Your task to perform on an android device: Open calendar and show me the first week of next month Image 0: 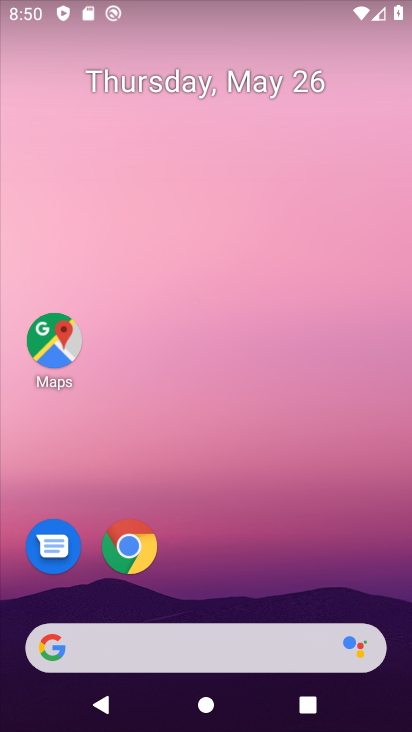
Step 0: drag from (237, 580) to (229, 93)
Your task to perform on an android device: Open calendar and show me the first week of next month Image 1: 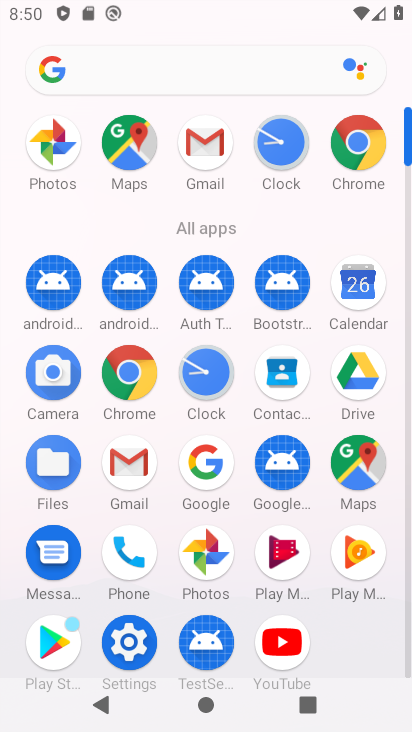
Step 1: click (351, 302)
Your task to perform on an android device: Open calendar and show me the first week of next month Image 2: 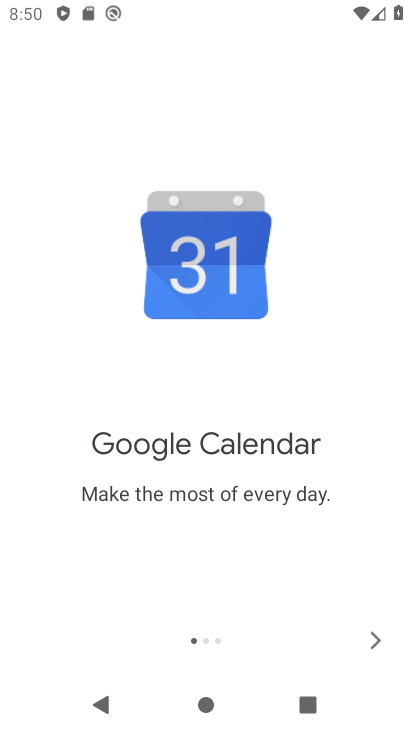
Step 2: click (371, 646)
Your task to perform on an android device: Open calendar and show me the first week of next month Image 3: 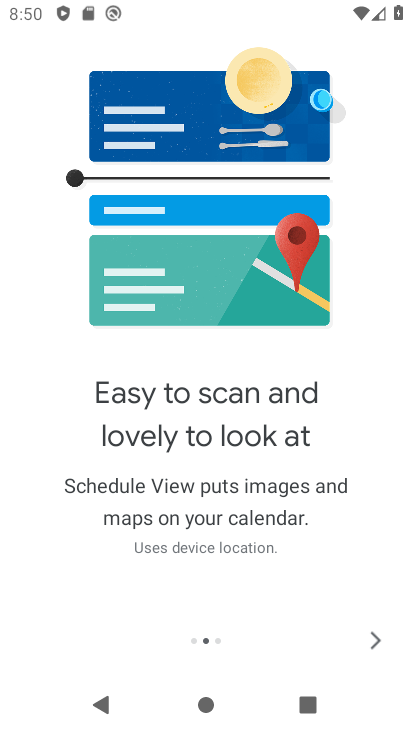
Step 3: click (371, 646)
Your task to perform on an android device: Open calendar and show me the first week of next month Image 4: 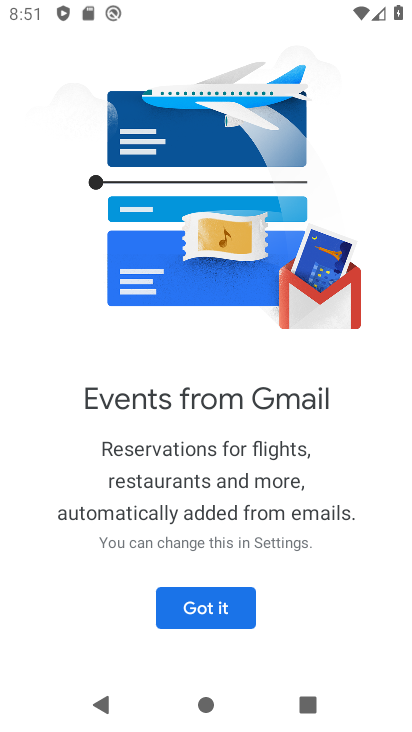
Step 4: click (224, 591)
Your task to perform on an android device: Open calendar and show me the first week of next month Image 5: 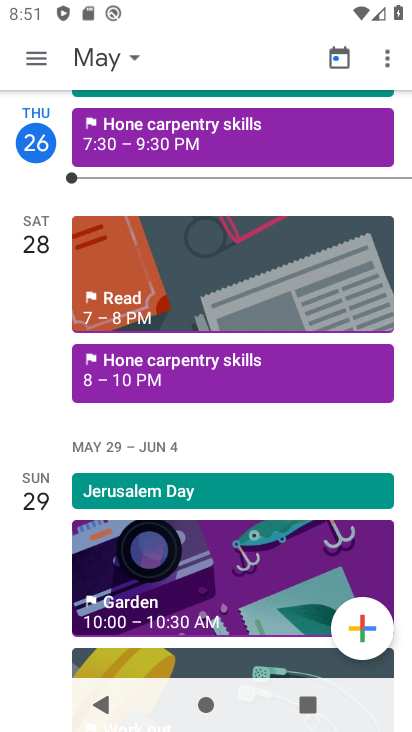
Step 5: click (40, 49)
Your task to perform on an android device: Open calendar and show me the first week of next month Image 6: 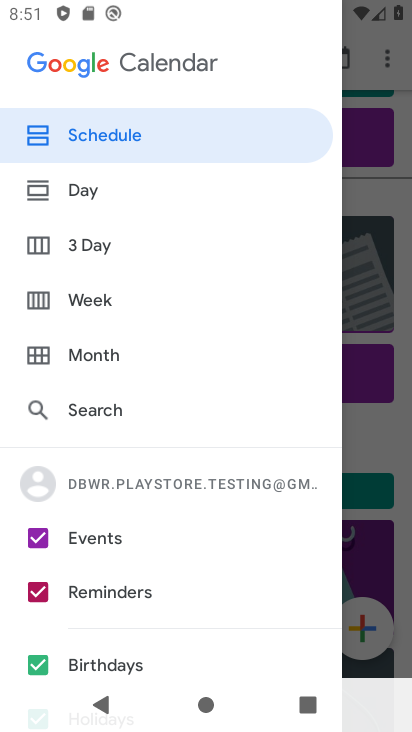
Step 6: click (96, 303)
Your task to perform on an android device: Open calendar and show me the first week of next month Image 7: 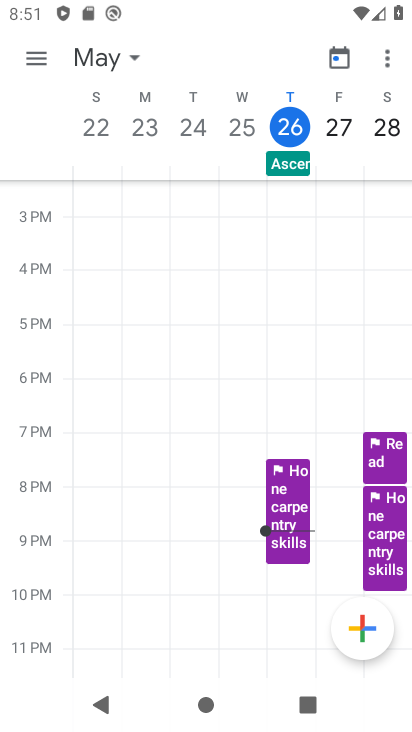
Step 7: click (131, 52)
Your task to perform on an android device: Open calendar and show me the first week of next month Image 8: 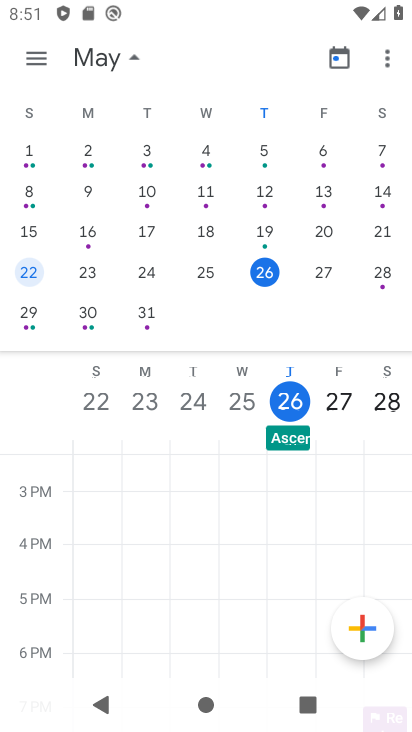
Step 8: task complete